Your task to perform on an android device: Open the calendar app, open the side menu, and click the "Day" option Image 0: 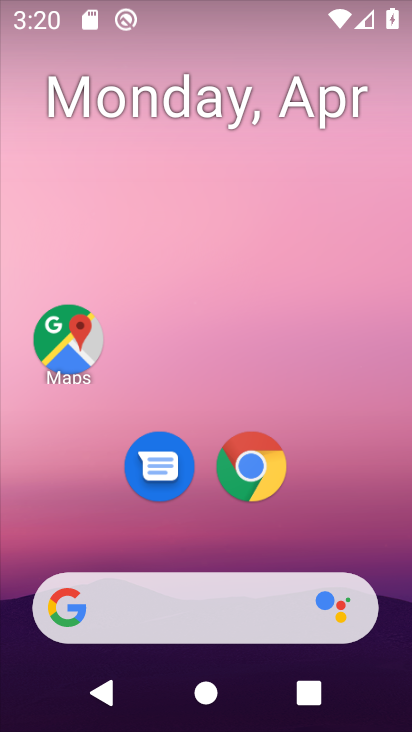
Step 0: drag from (181, 521) to (210, 195)
Your task to perform on an android device: Open the calendar app, open the side menu, and click the "Day" option Image 1: 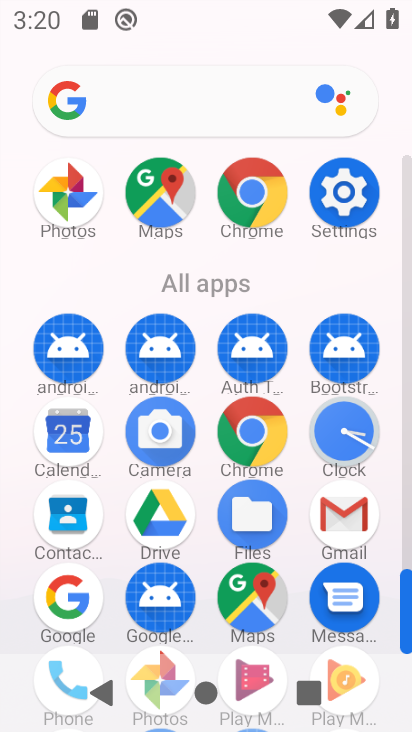
Step 1: click (61, 453)
Your task to perform on an android device: Open the calendar app, open the side menu, and click the "Day" option Image 2: 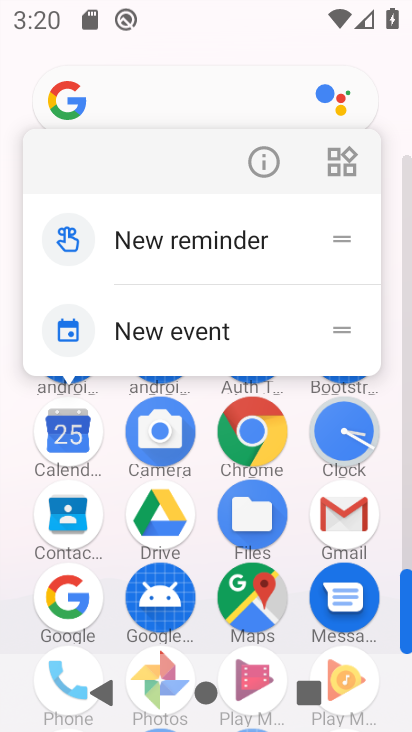
Step 2: click (259, 176)
Your task to perform on an android device: Open the calendar app, open the side menu, and click the "Day" option Image 3: 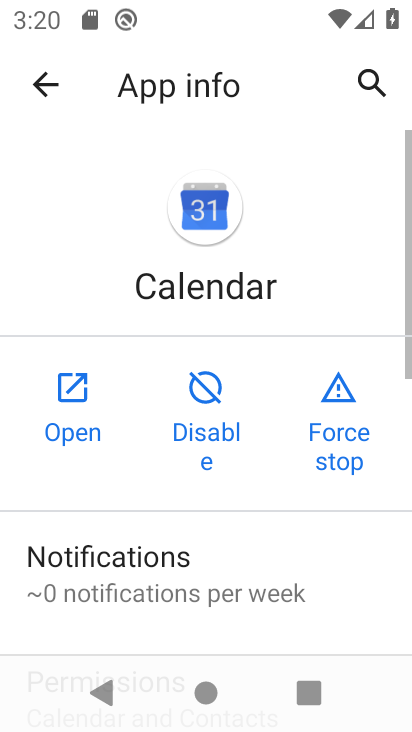
Step 3: click (82, 422)
Your task to perform on an android device: Open the calendar app, open the side menu, and click the "Day" option Image 4: 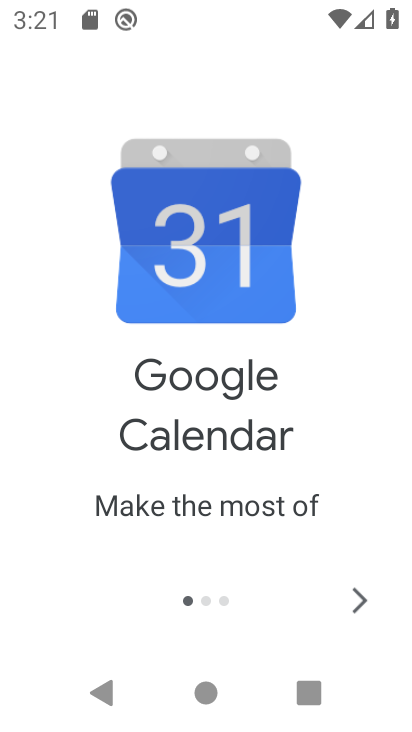
Step 4: click (358, 599)
Your task to perform on an android device: Open the calendar app, open the side menu, and click the "Day" option Image 5: 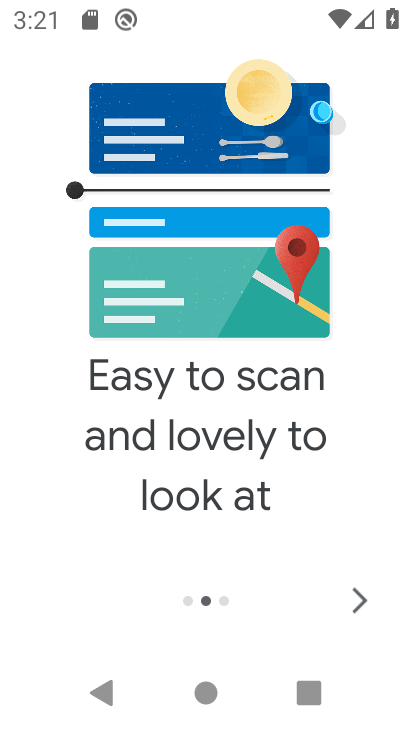
Step 5: click (358, 599)
Your task to perform on an android device: Open the calendar app, open the side menu, and click the "Day" option Image 6: 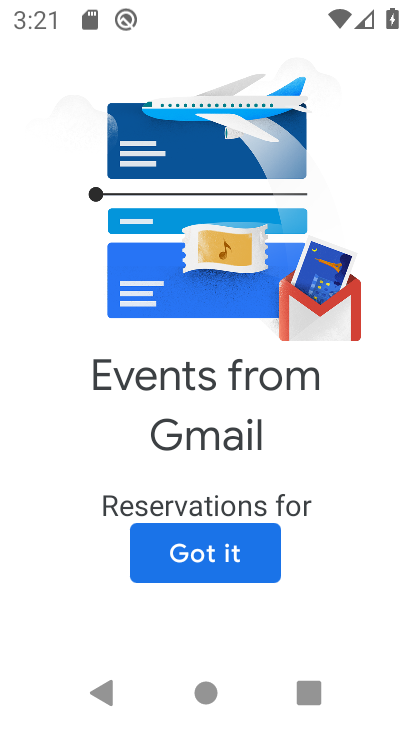
Step 6: click (231, 551)
Your task to perform on an android device: Open the calendar app, open the side menu, and click the "Day" option Image 7: 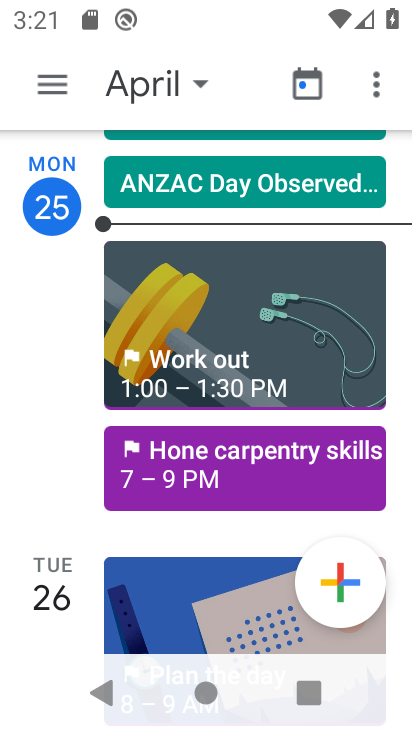
Step 7: click (54, 92)
Your task to perform on an android device: Open the calendar app, open the side menu, and click the "Day" option Image 8: 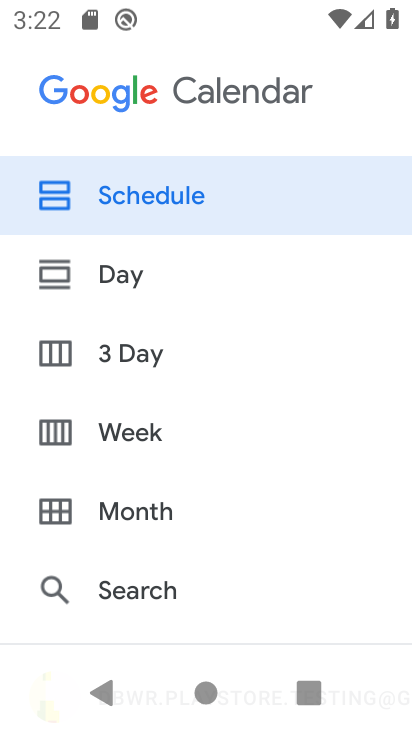
Step 8: click (138, 294)
Your task to perform on an android device: Open the calendar app, open the side menu, and click the "Day" option Image 9: 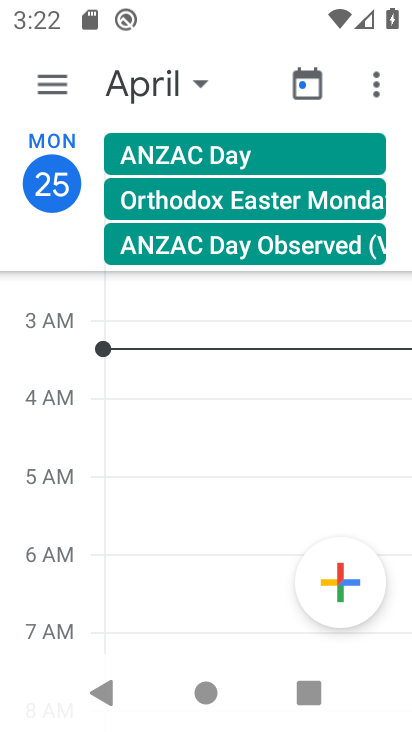
Step 9: task complete